Your task to perform on an android device: What's the weather going to be this weekend? Image 0: 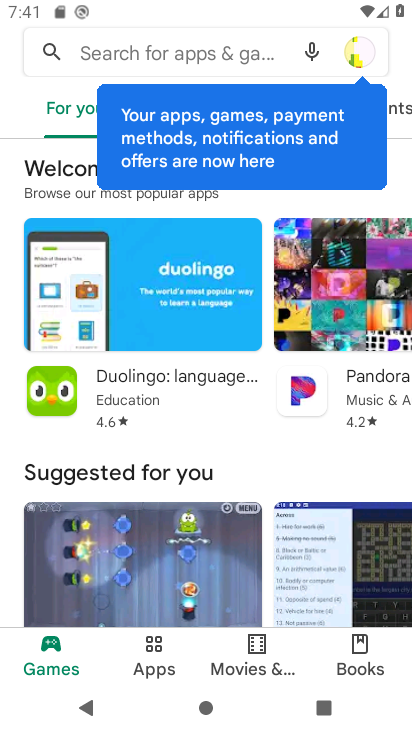
Step 0: press home button
Your task to perform on an android device: What's the weather going to be this weekend? Image 1: 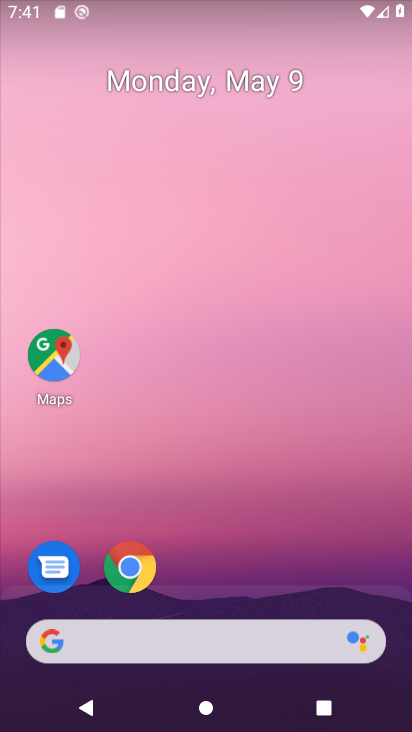
Step 1: click (256, 660)
Your task to perform on an android device: What's the weather going to be this weekend? Image 2: 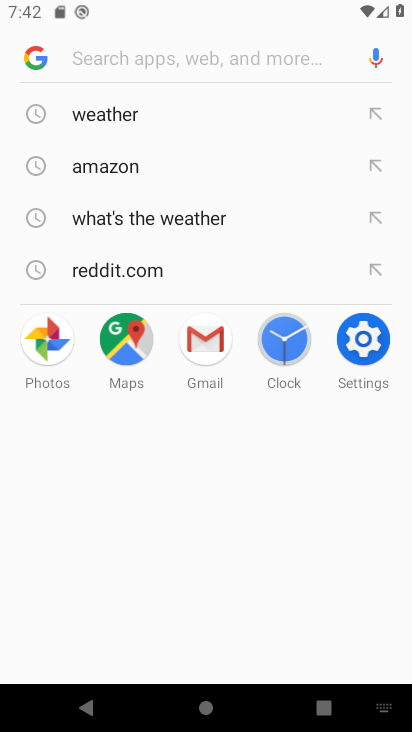
Step 2: type "what's the weather going to be this weekend"
Your task to perform on an android device: What's the weather going to be this weekend? Image 3: 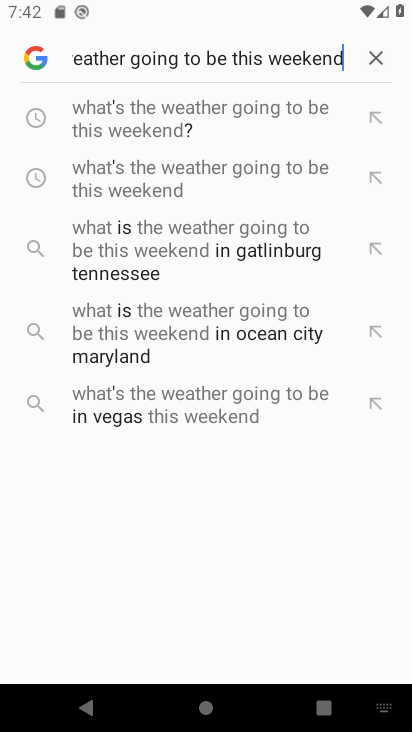
Step 3: click (207, 115)
Your task to perform on an android device: What's the weather going to be this weekend? Image 4: 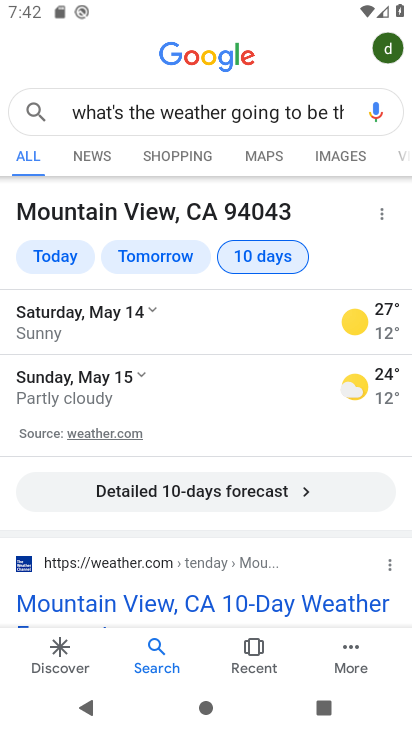
Step 4: task complete